Your task to perform on an android device: turn off priority inbox in the gmail app Image 0: 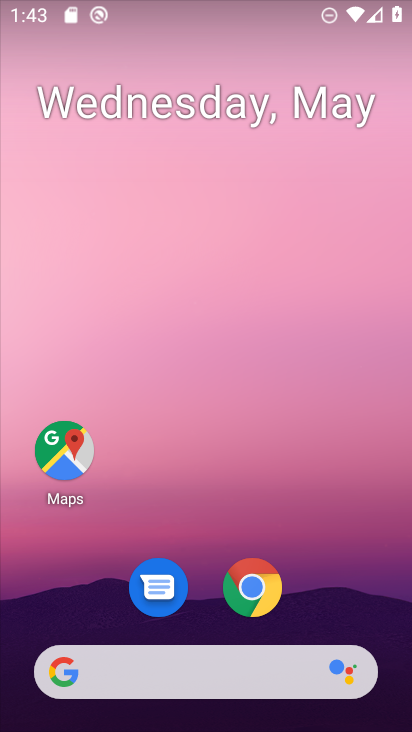
Step 0: drag from (319, 592) to (269, 170)
Your task to perform on an android device: turn off priority inbox in the gmail app Image 1: 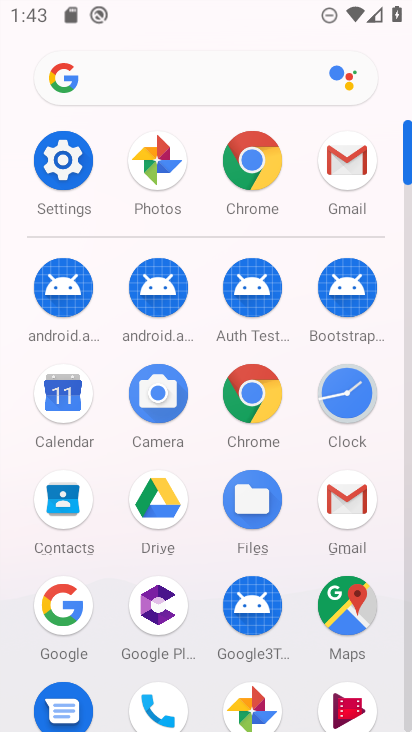
Step 1: click (356, 167)
Your task to perform on an android device: turn off priority inbox in the gmail app Image 2: 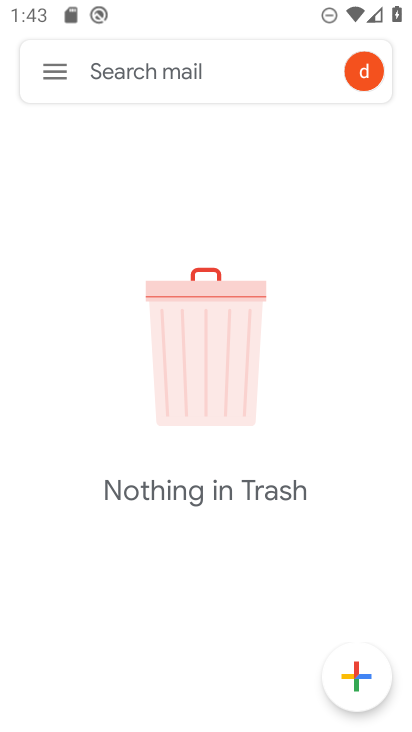
Step 2: click (59, 74)
Your task to perform on an android device: turn off priority inbox in the gmail app Image 3: 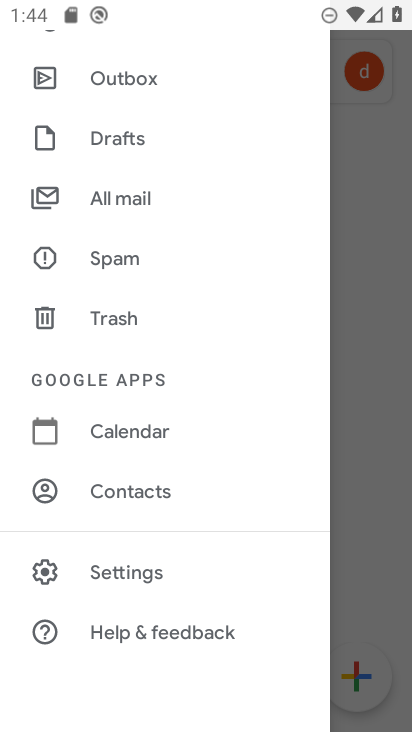
Step 3: click (121, 577)
Your task to perform on an android device: turn off priority inbox in the gmail app Image 4: 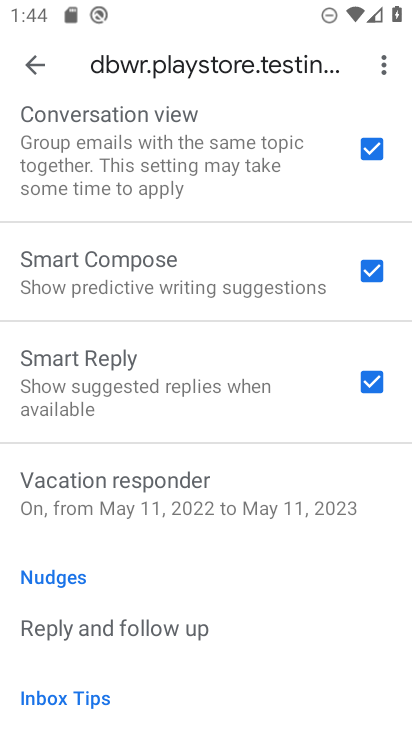
Step 4: drag from (186, 256) to (130, 640)
Your task to perform on an android device: turn off priority inbox in the gmail app Image 5: 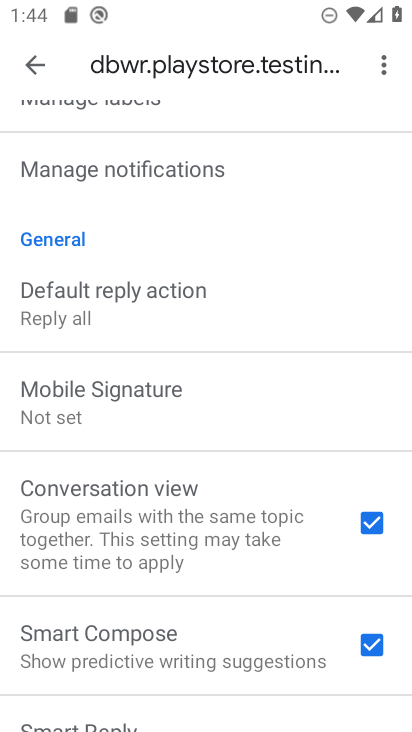
Step 5: drag from (213, 271) to (147, 731)
Your task to perform on an android device: turn off priority inbox in the gmail app Image 6: 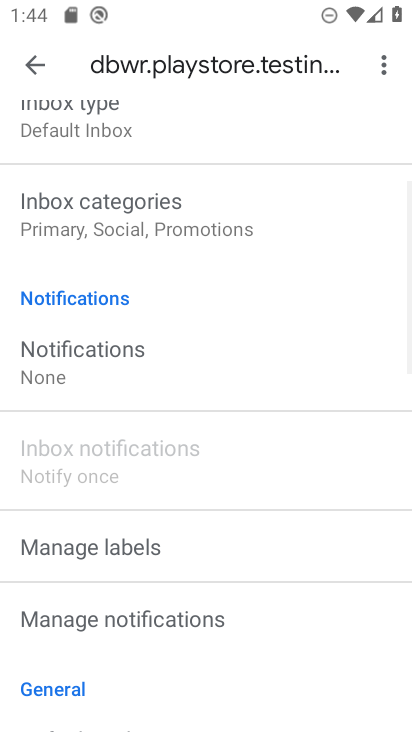
Step 6: drag from (245, 401) to (190, 730)
Your task to perform on an android device: turn off priority inbox in the gmail app Image 7: 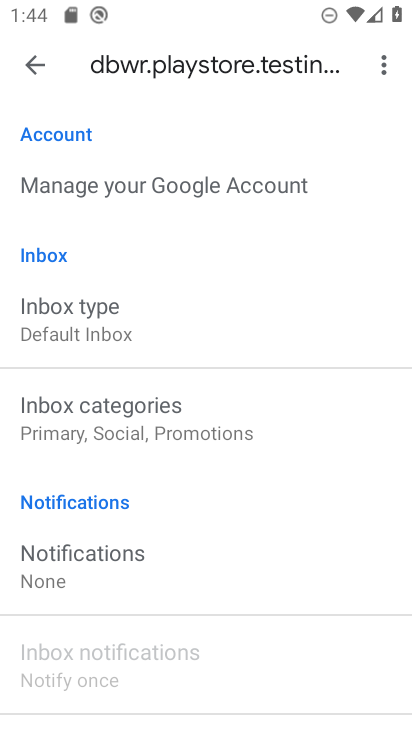
Step 7: click (91, 313)
Your task to perform on an android device: turn off priority inbox in the gmail app Image 8: 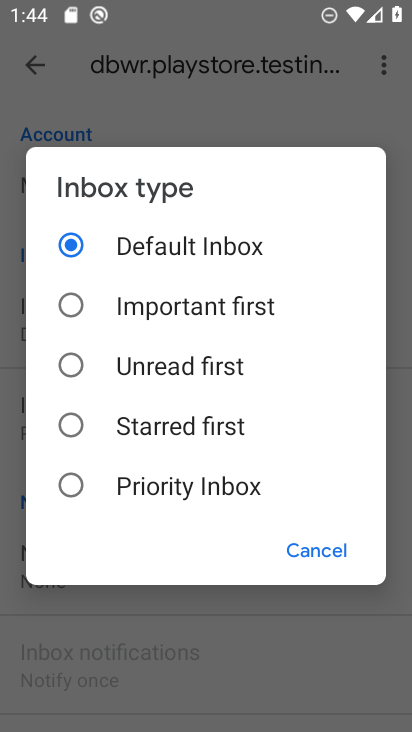
Step 8: task complete